Your task to perform on an android device: Open the web browser Image 0: 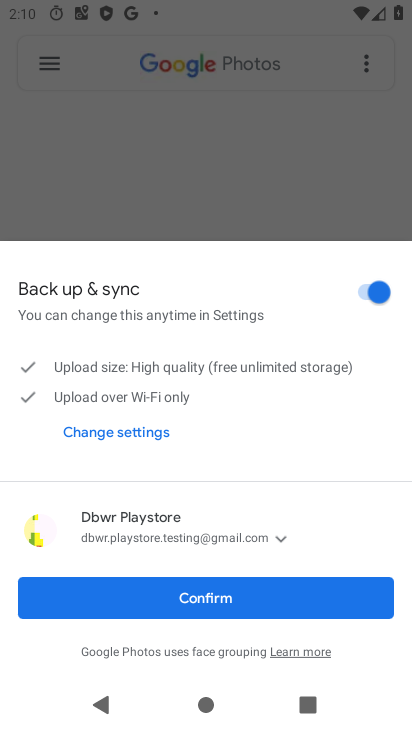
Step 0: press home button
Your task to perform on an android device: Open the web browser Image 1: 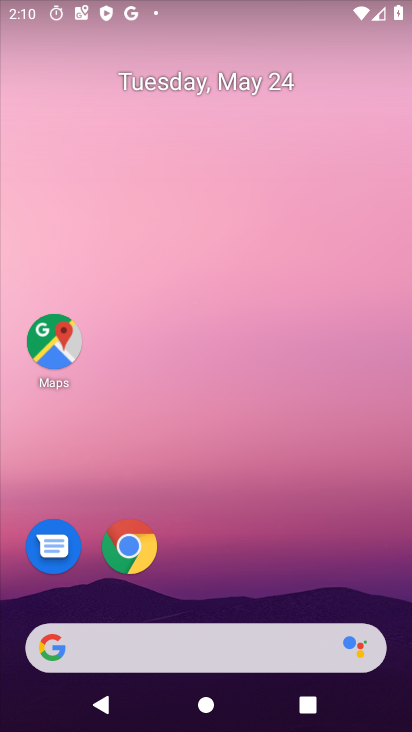
Step 1: click (130, 556)
Your task to perform on an android device: Open the web browser Image 2: 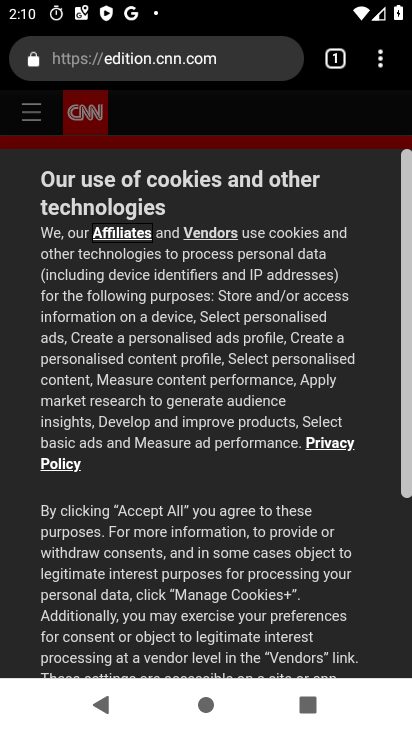
Step 2: task complete